Your task to perform on an android device: turn notification dots off Image 0: 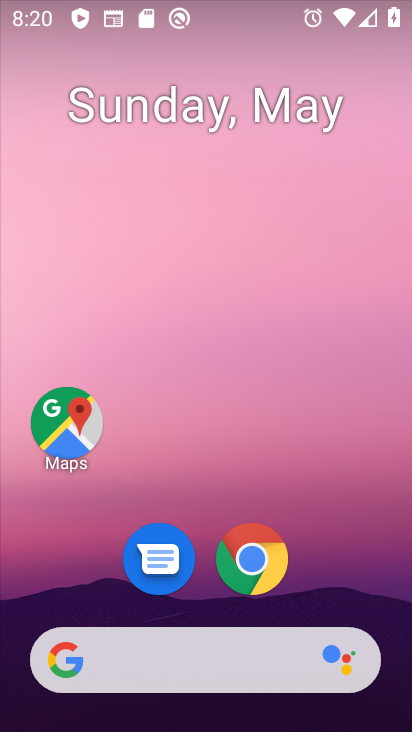
Step 0: drag from (29, 695) to (174, 311)
Your task to perform on an android device: turn notification dots off Image 1: 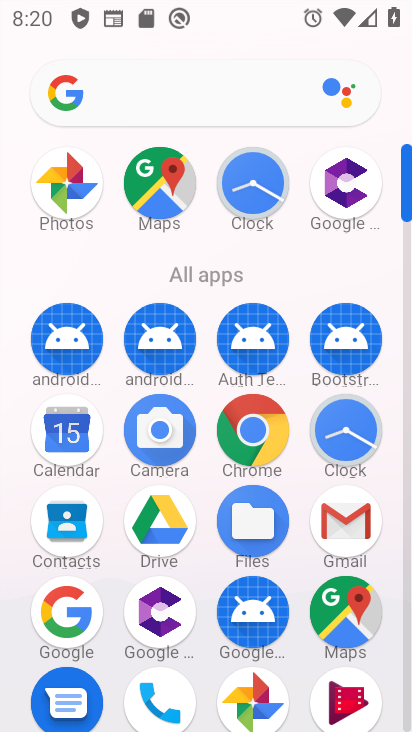
Step 1: drag from (149, 607) to (225, 164)
Your task to perform on an android device: turn notification dots off Image 2: 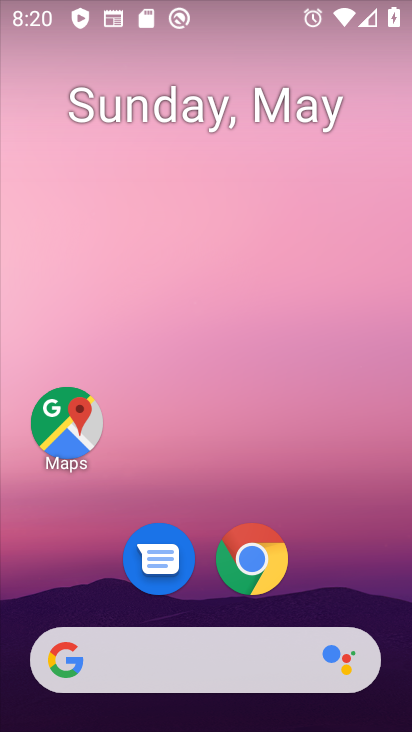
Step 2: drag from (41, 593) to (221, 201)
Your task to perform on an android device: turn notification dots off Image 3: 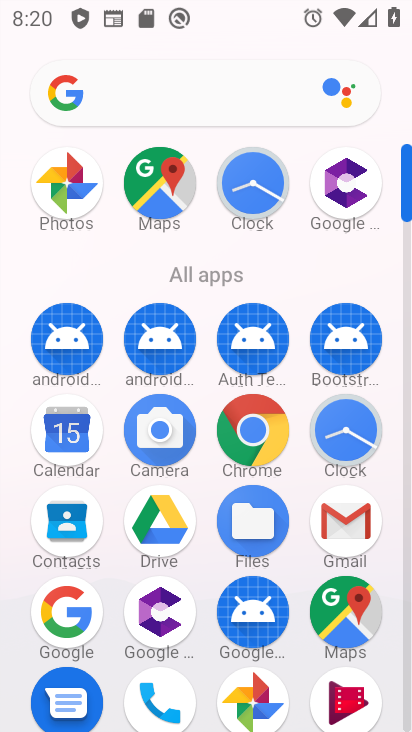
Step 3: drag from (6, 656) to (275, 205)
Your task to perform on an android device: turn notification dots off Image 4: 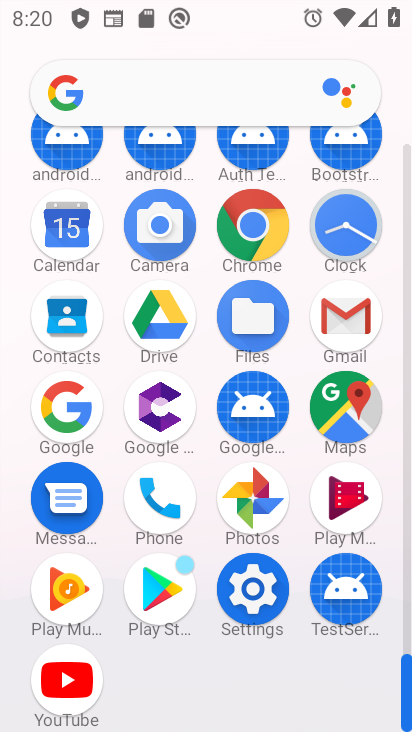
Step 4: click (247, 565)
Your task to perform on an android device: turn notification dots off Image 5: 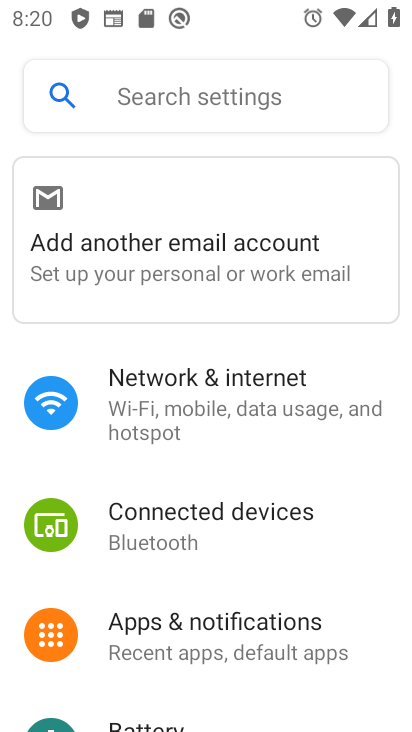
Step 5: click (157, 626)
Your task to perform on an android device: turn notification dots off Image 6: 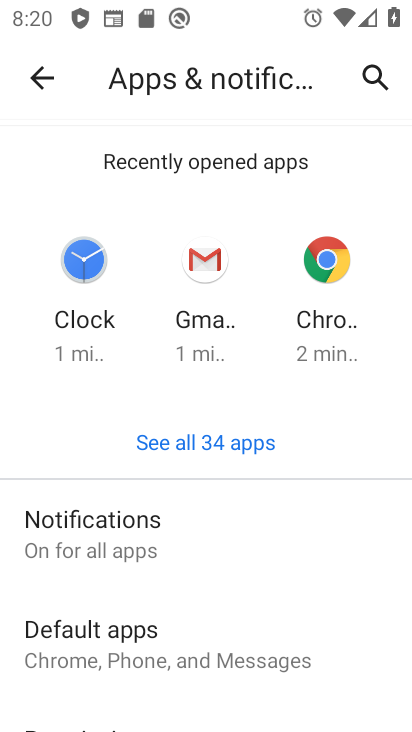
Step 6: click (77, 556)
Your task to perform on an android device: turn notification dots off Image 7: 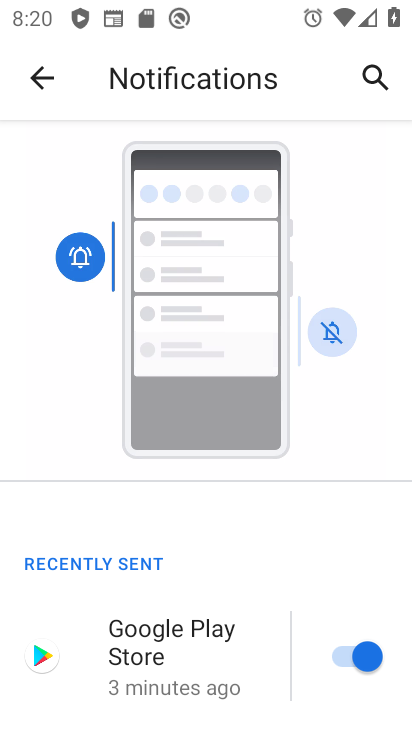
Step 7: drag from (106, 651) to (157, 145)
Your task to perform on an android device: turn notification dots off Image 8: 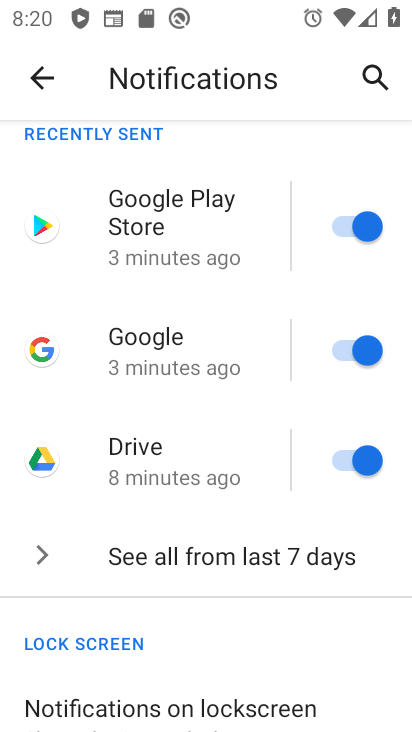
Step 8: drag from (90, 683) to (137, 245)
Your task to perform on an android device: turn notification dots off Image 9: 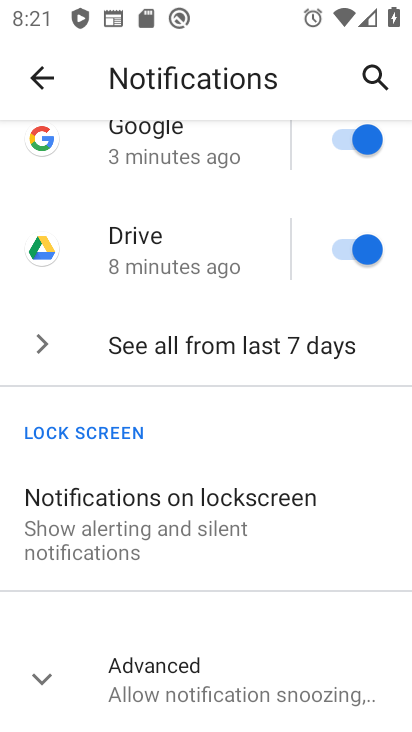
Step 9: click (137, 668)
Your task to perform on an android device: turn notification dots off Image 10: 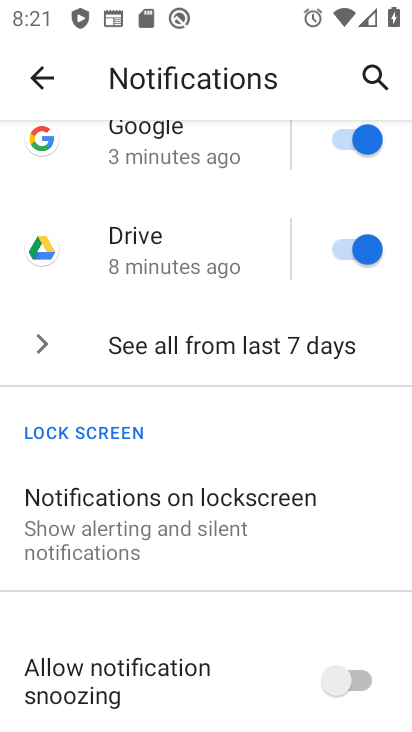
Step 10: drag from (91, 710) to (266, 242)
Your task to perform on an android device: turn notification dots off Image 11: 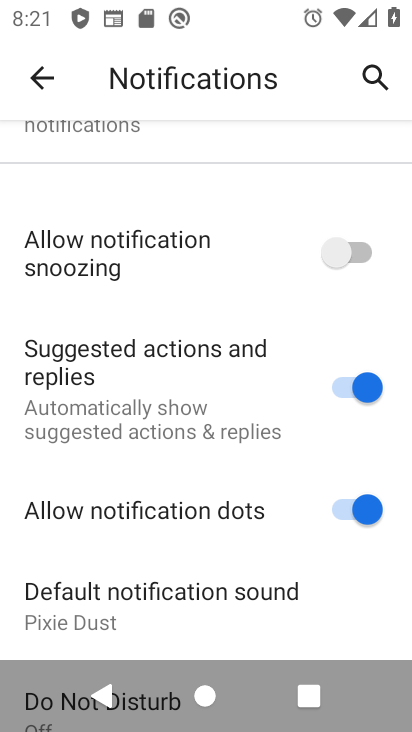
Step 11: click (362, 510)
Your task to perform on an android device: turn notification dots off Image 12: 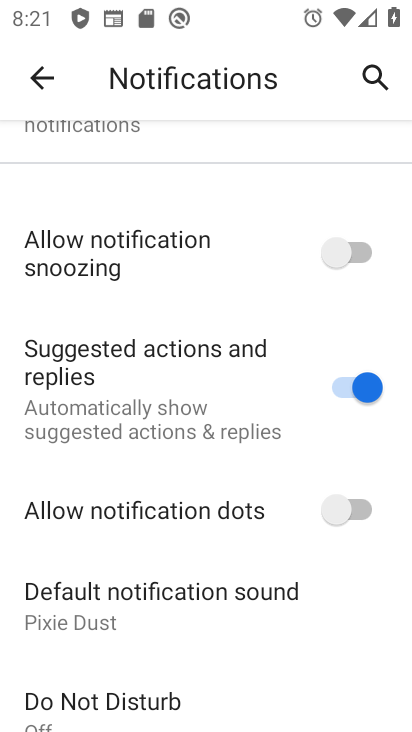
Step 12: task complete